Your task to perform on an android device: set the stopwatch Image 0: 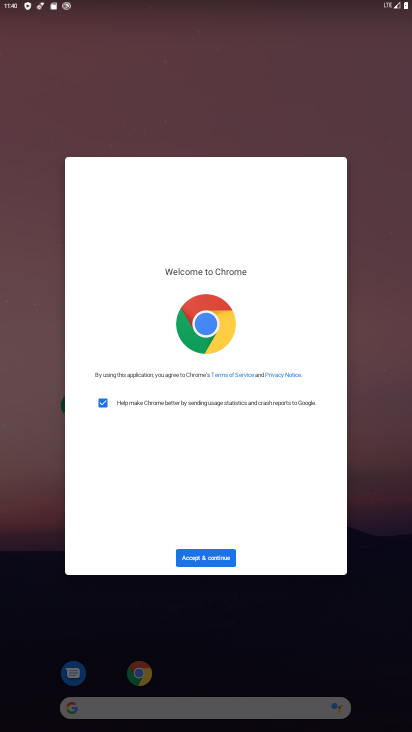
Step 0: press home button
Your task to perform on an android device: set the stopwatch Image 1: 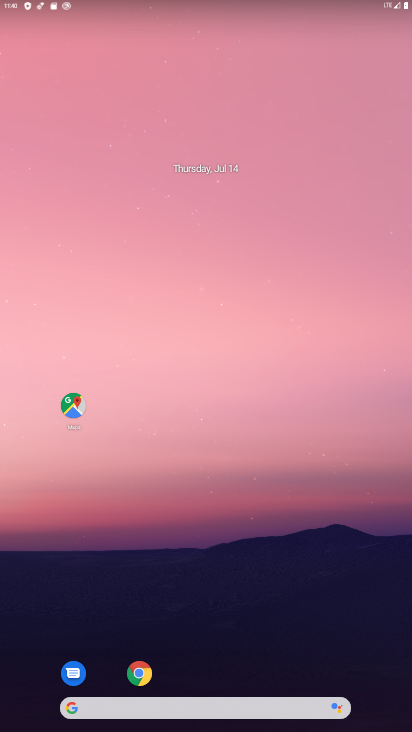
Step 1: drag from (193, 575) to (257, 103)
Your task to perform on an android device: set the stopwatch Image 2: 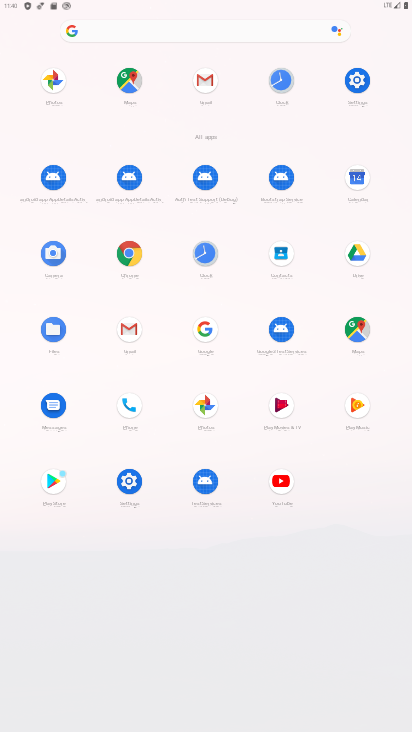
Step 2: click (199, 247)
Your task to perform on an android device: set the stopwatch Image 3: 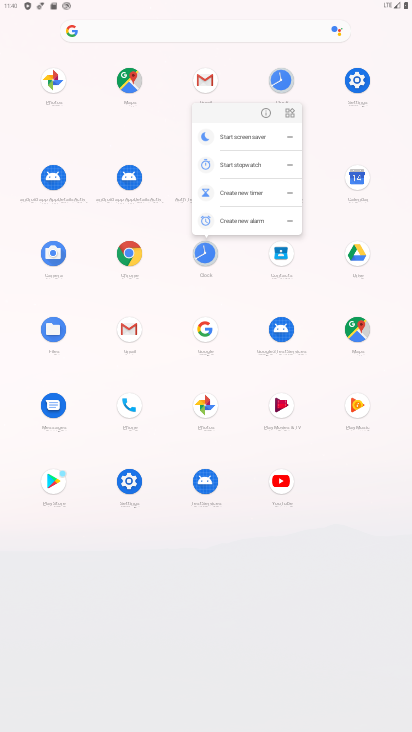
Step 3: click (261, 112)
Your task to perform on an android device: set the stopwatch Image 4: 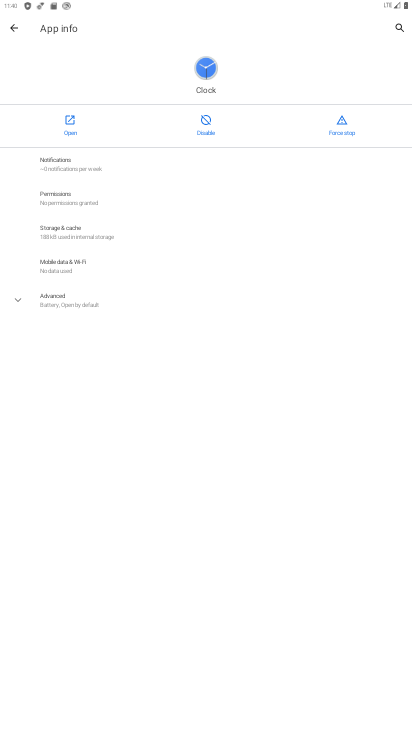
Step 4: click (66, 124)
Your task to perform on an android device: set the stopwatch Image 5: 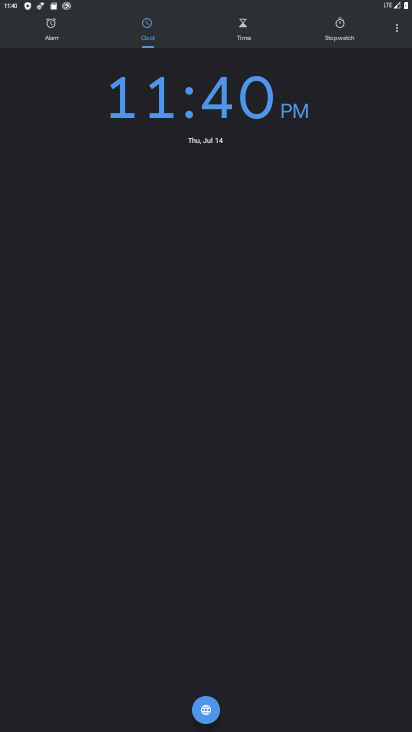
Step 5: click (343, 37)
Your task to perform on an android device: set the stopwatch Image 6: 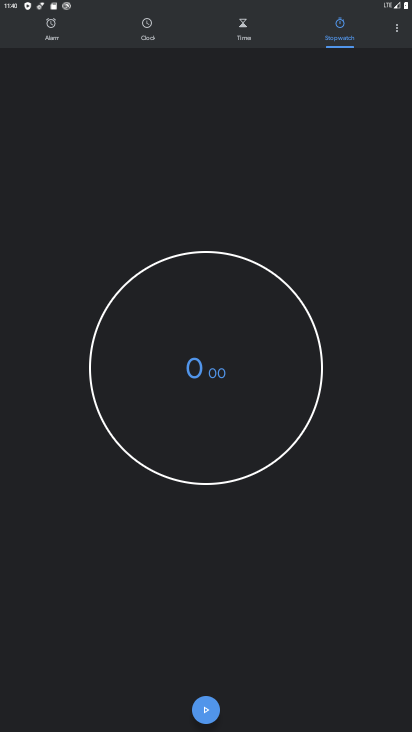
Step 6: click (210, 706)
Your task to perform on an android device: set the stopwatch Image 7: 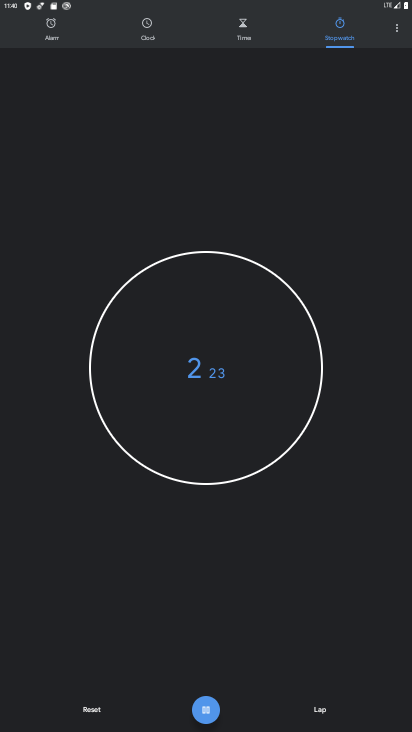
Step 7: task complete